Your task to perform on an android device: open chrome and create a bookmark for the current page Image 0: 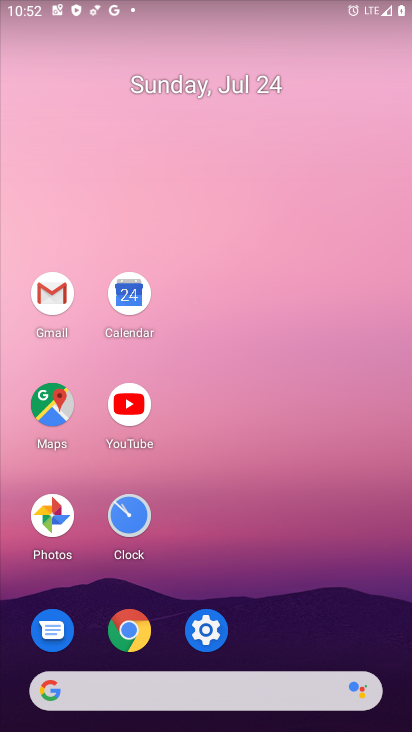
Step 0: click (134, 619)
Your task to perform on an android device: open chrome and create a bookmark for the current page Image 1: 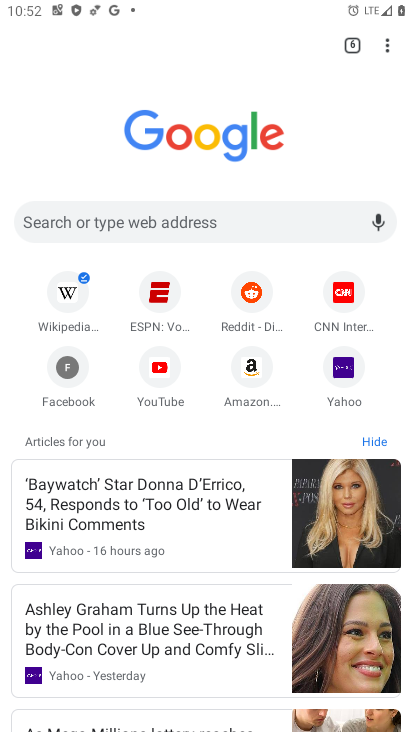
Step 1: click (387, 37)
Your task to perform on an android device: open chrome and create a bookmark for the current page Image 2: 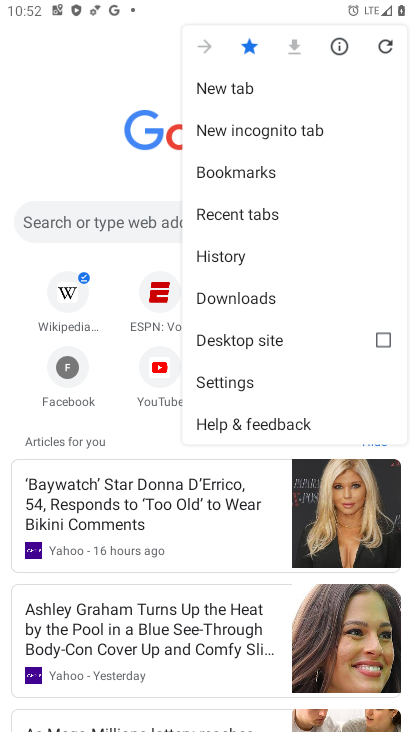
Step 2: task complete